Your task to perform on an android device: turn smart compose on in the gmail app Image 0: 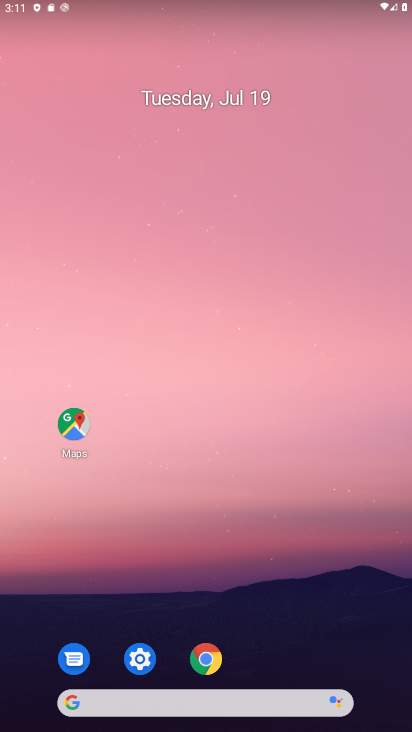
Step 0: drag from (265, 324) to (246, 212)
Your task to perform on an android device: turn smart compose on in the gmail app Image 1: 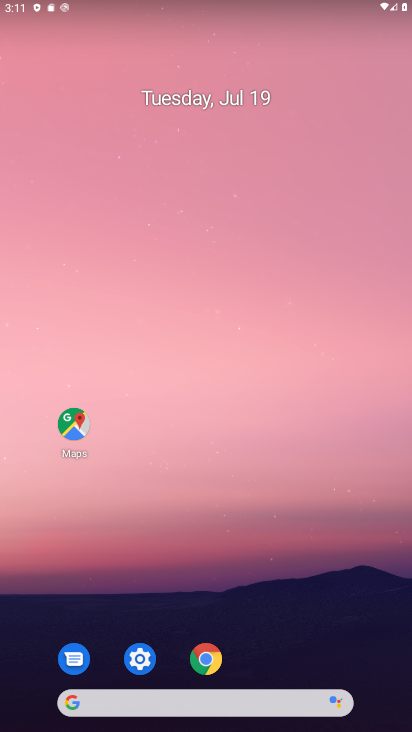
Step 1: drag from (166, 396) to (166, 294)
Your task to perform on an android device: turn smart compose on in the gmail app Image 2: 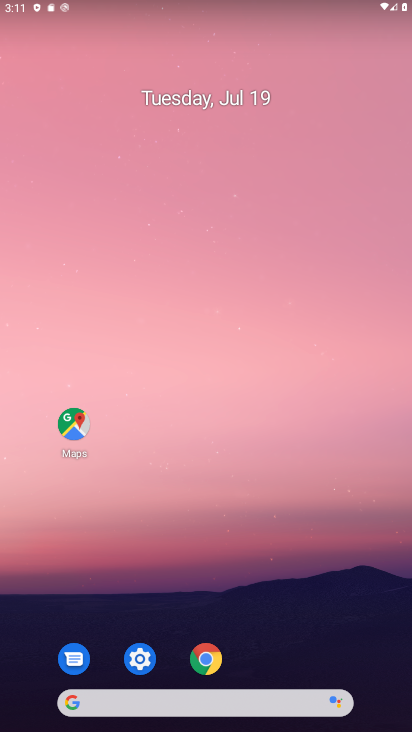
Step 2: drag from (267, 369) to (261, 174)
Your task to perform on an android device: turn smart compose on in the gmail app Image 3: 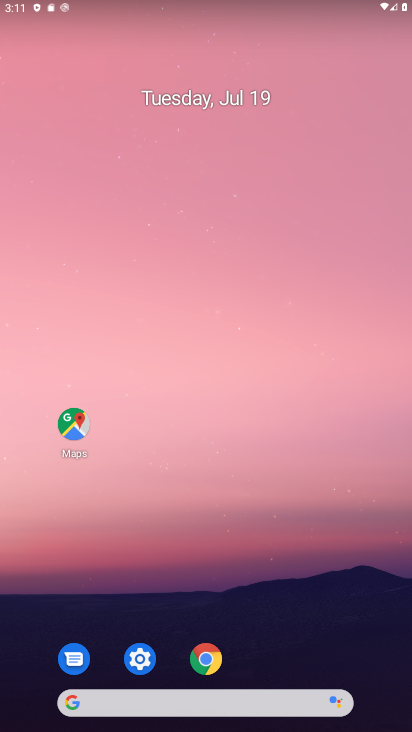
Step 3: drag from (228, 669) to (148, 227)
Your task to perform on an android device: turn smart compose on in the gmail app Image 4: 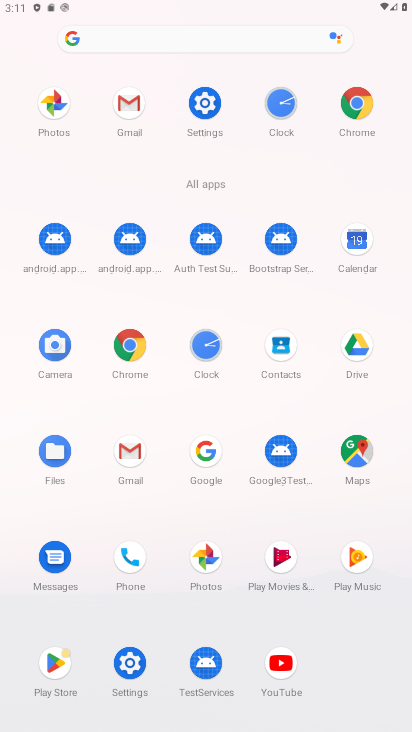
Step 4: click (141, 457)
Your task to perform on an android device: turn smart compose on in the gmail app Image 5: 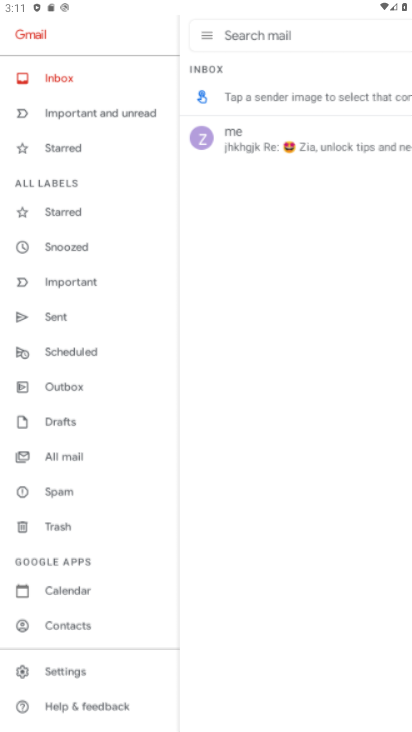
Step 5: click (126, 460)
Your task to perform on an android device: turn smart compose on in the gmail app Image 6: 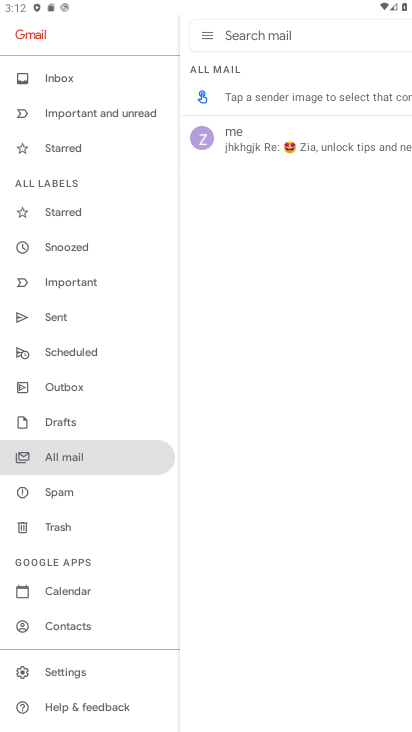
Step 6: click (66, 669)
Your task to perform on an android device: turn smart compose on in the gmail app Image 7: 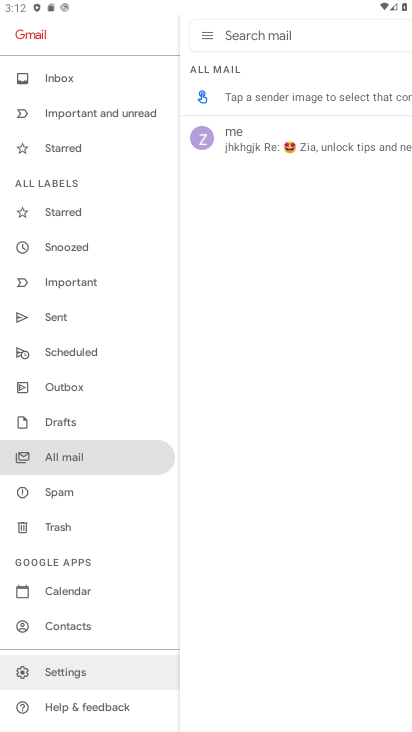
Step 7: click (68, 673)
Your task to perform on an android device: turn smart compose on in the gmail app Image 8: 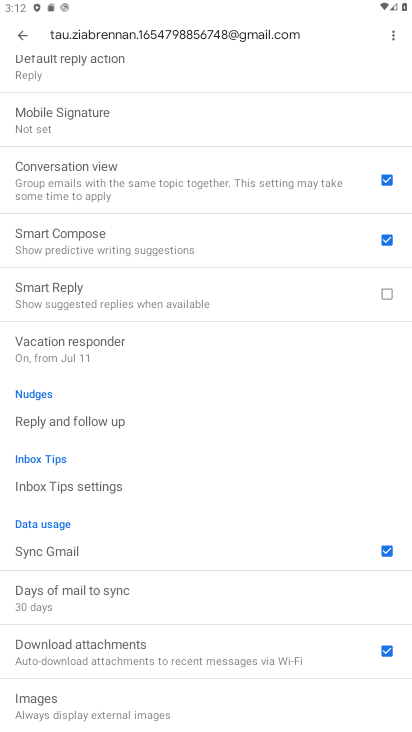
Step 8: task complete